Your task to perform on an android device: toggle show notifications on the lock screen Image 0: 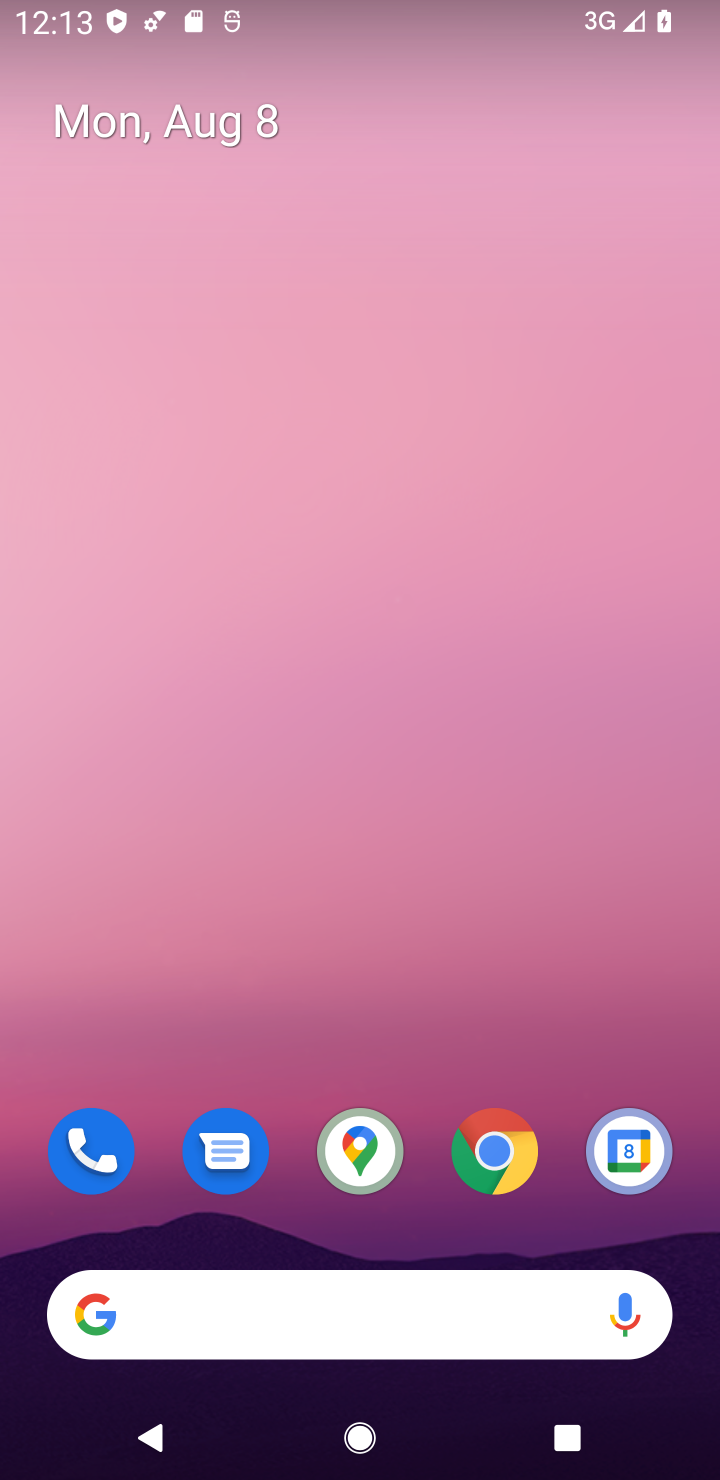
Step 0: drag from (352, 1146) to (258, 455)
Your task to perform on an android device: toggle show notifications on the lock screen Image 1: 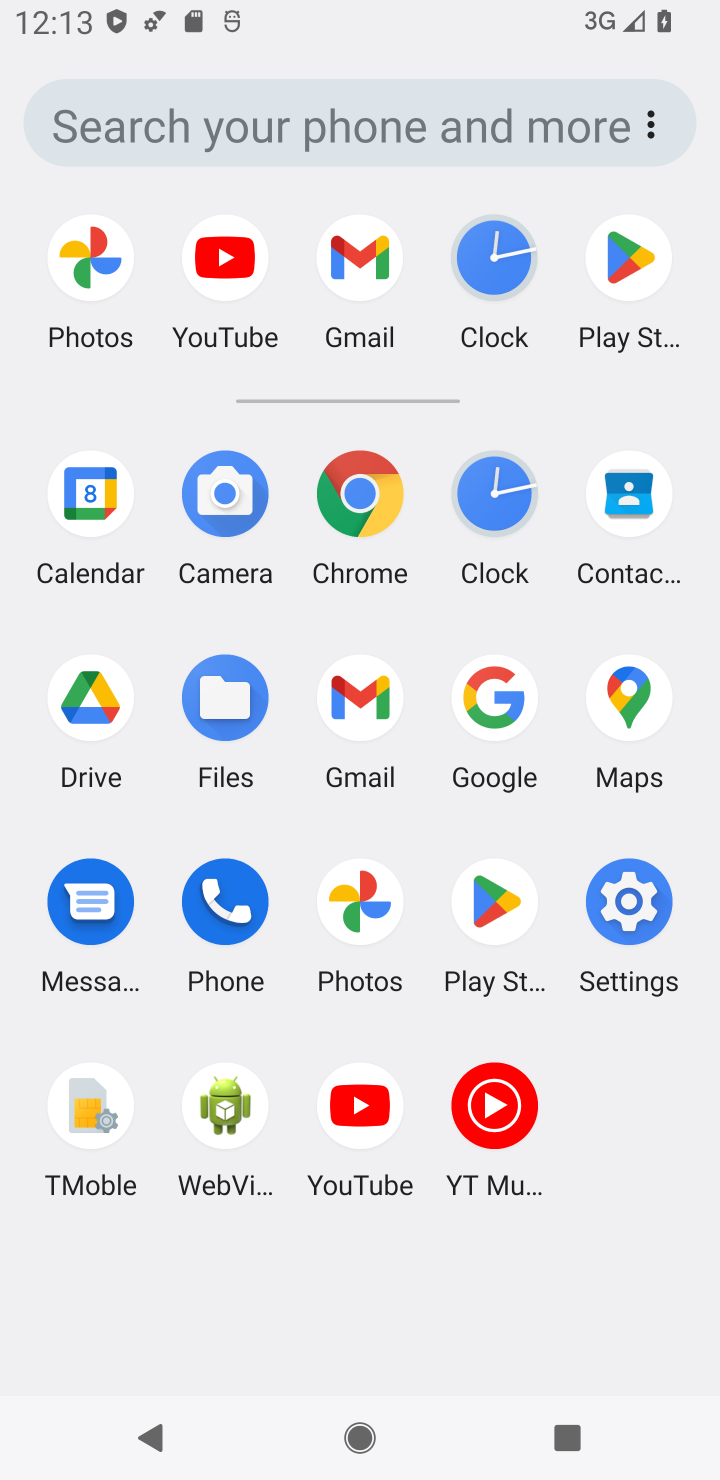
Step 1: click (600, 889)
Your task to perform on an android device: toggle show notifications on the lock screen Image 2: 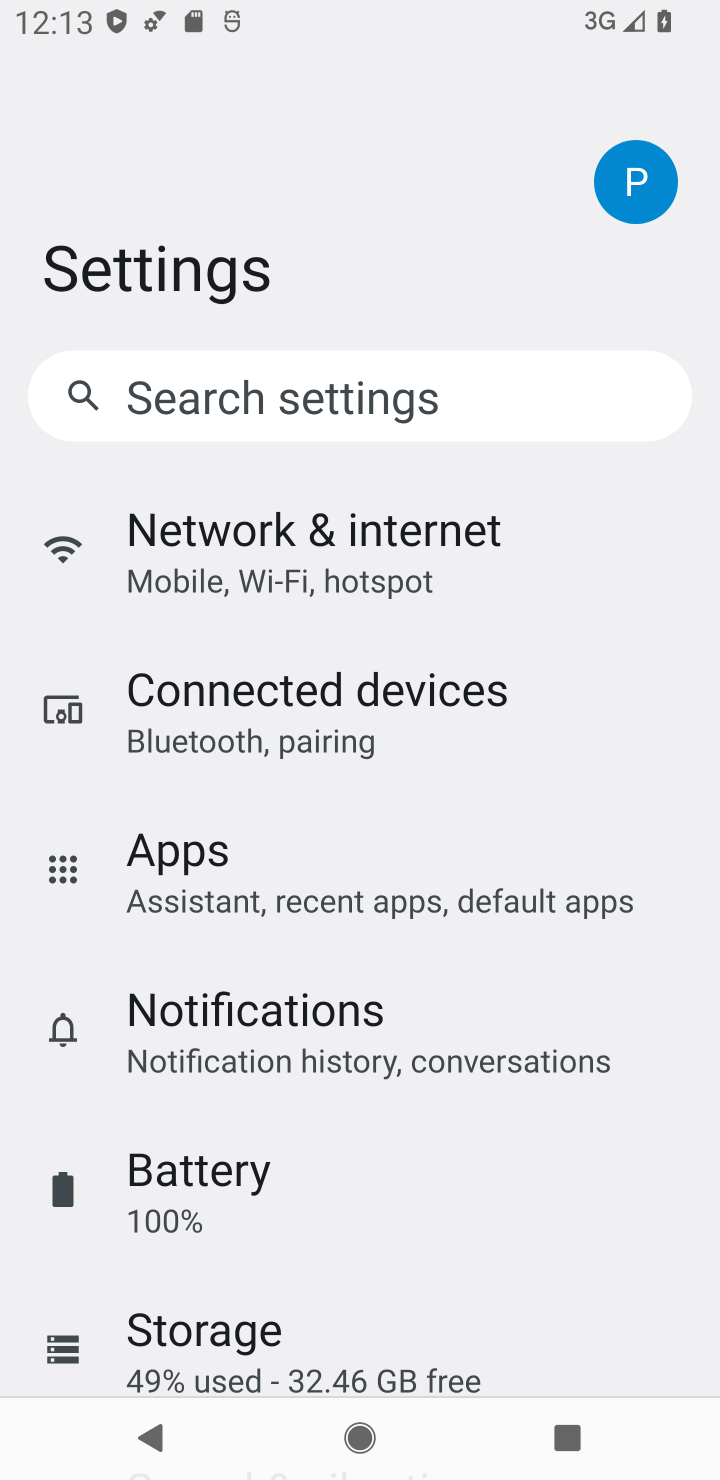
Step 2: drag from (355, 1251) to (287, 479)
Your task to perform on an android device: toggle show notifications on the lock screen Image 3: 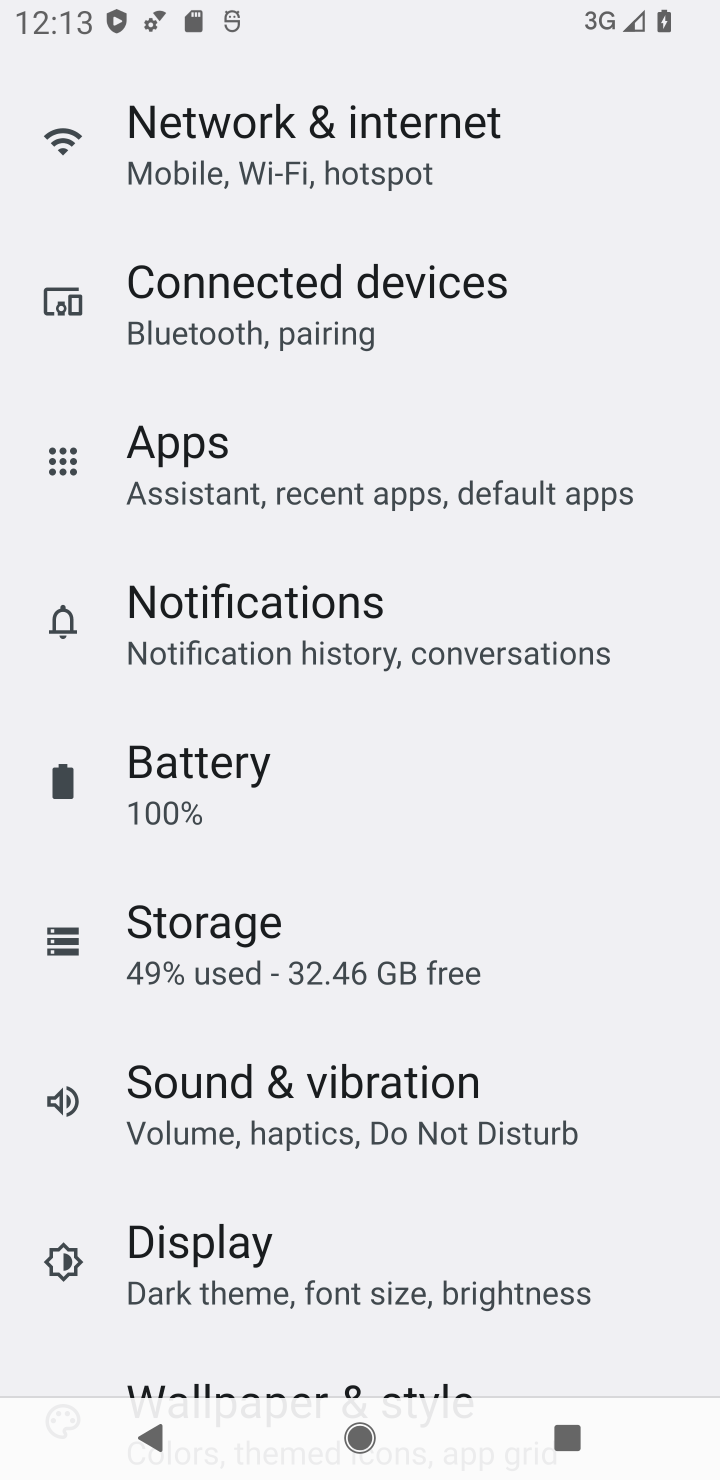
Step 3: drag from (347, 1325) to (262, 667)
Your task to perform on an android device: toggle show notifications on the lock screen Image 4: 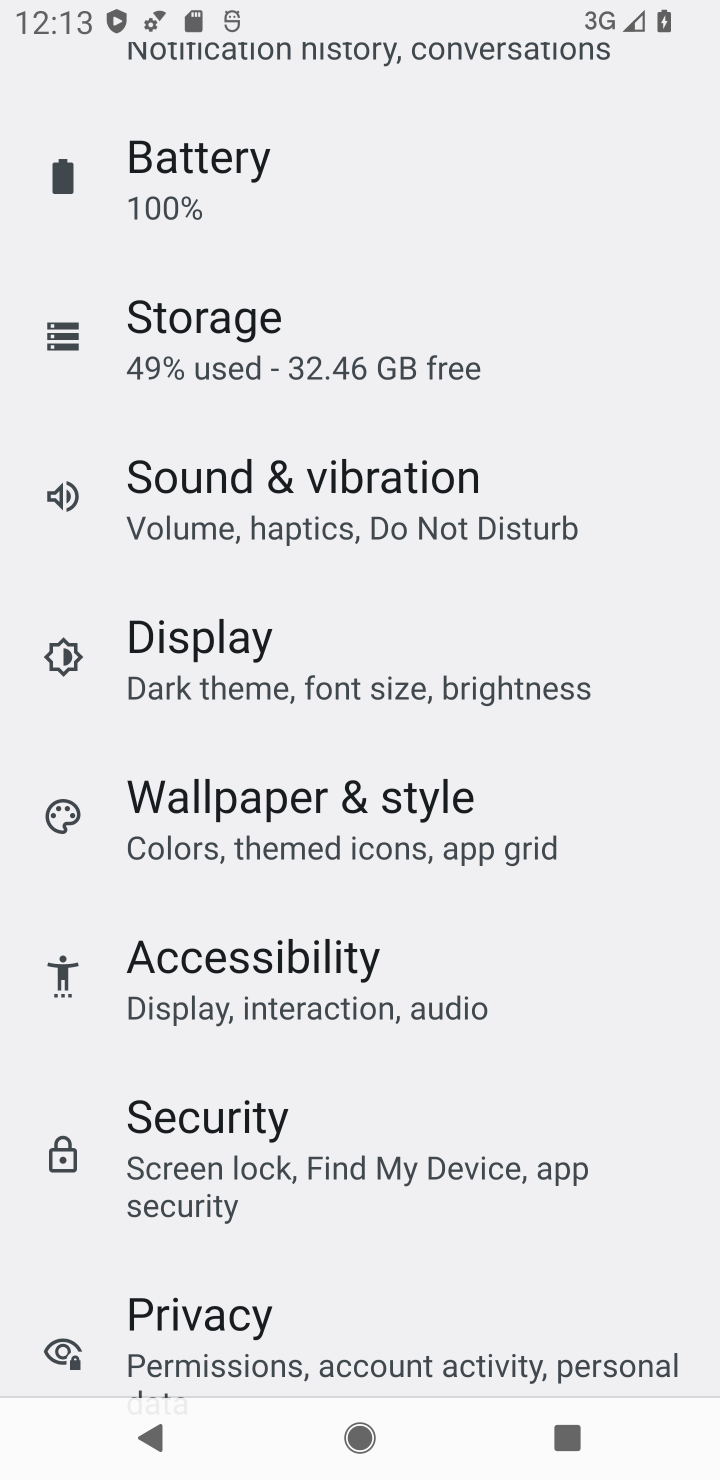
Step 4: click (326, 1347)
Your task to perform on an android device: toggle show notifications on the lock screen Image 5: 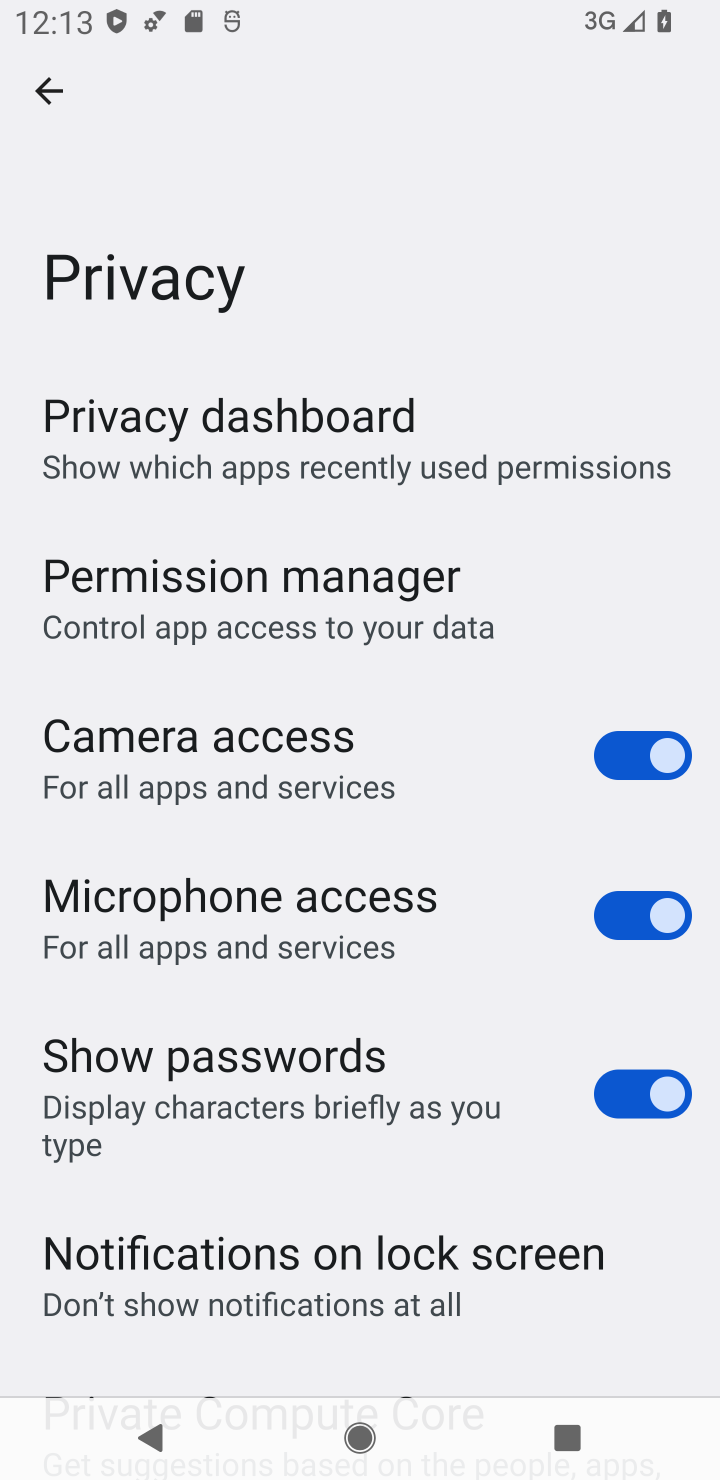
Step 5: click (258, 1258)
Your task to perform on an android device: toggle show notifications on the lock screen Image 6: 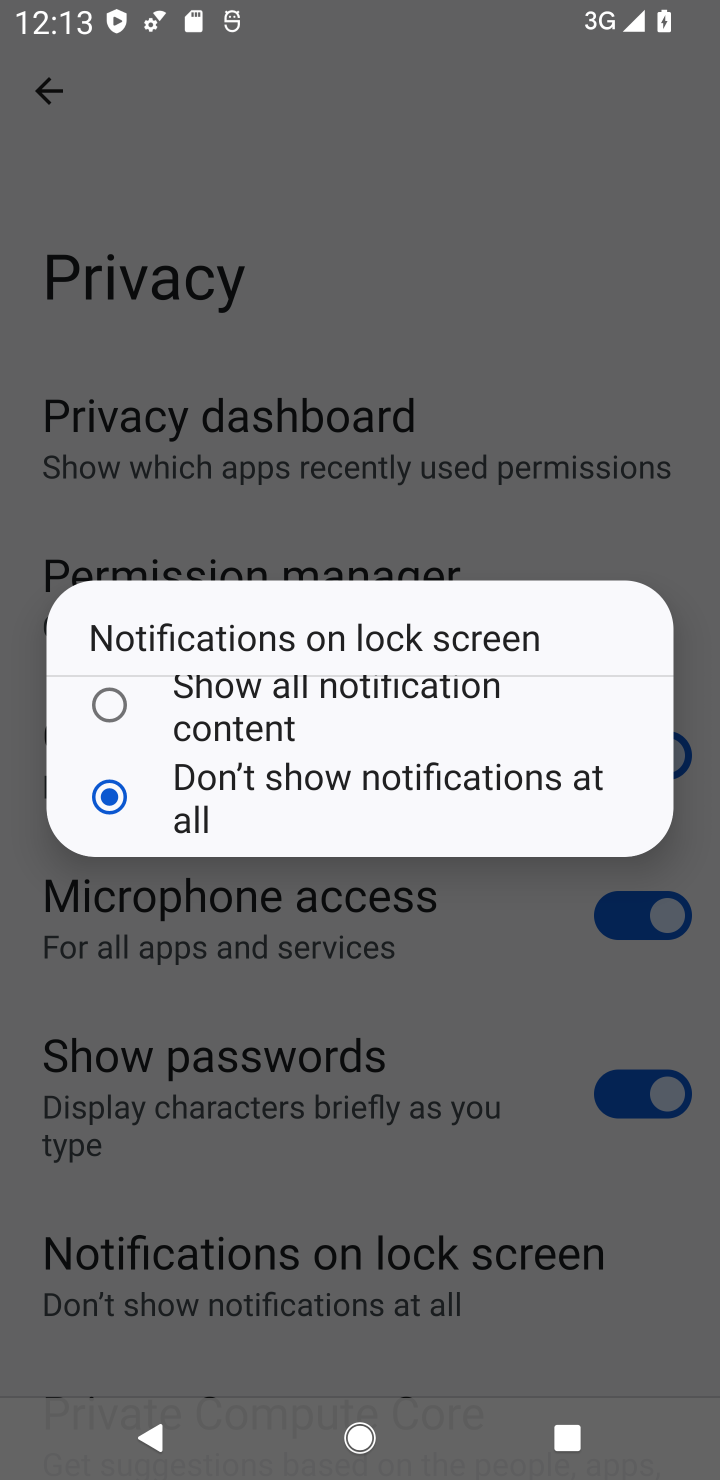
Step 6: click (236, 699)
Your task to perform on an android device: toggle show notifications on the lock screen Image 7: 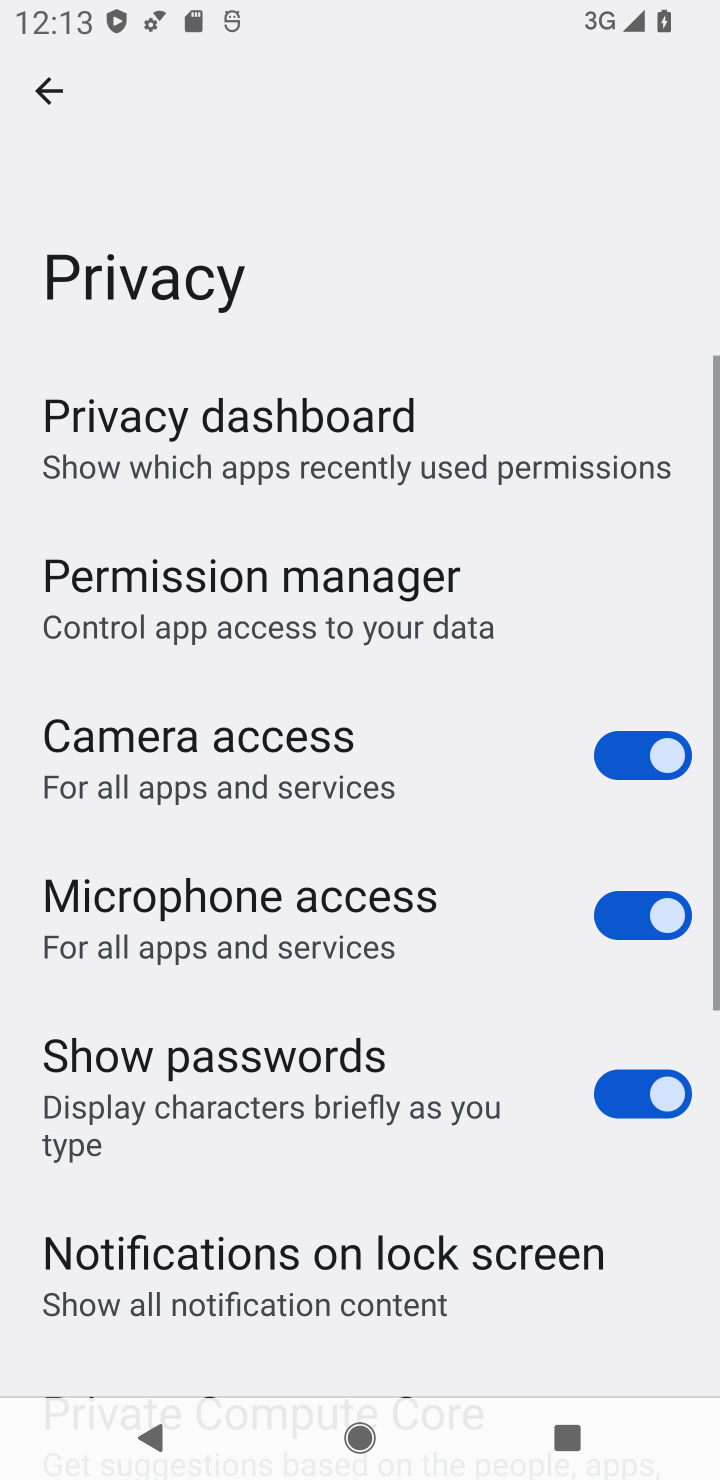
Step 7: task complete